Your task to perform on an android device: Open ESPN.com Image 0: 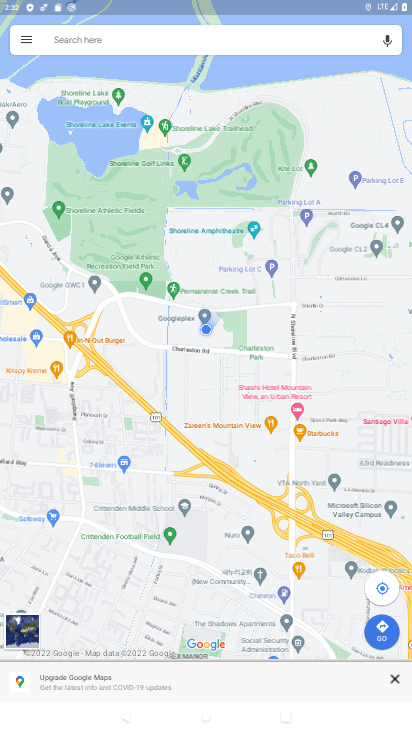
Step 0: press home button
Your task to perform on an android device: Open ESPN.com Image 1: 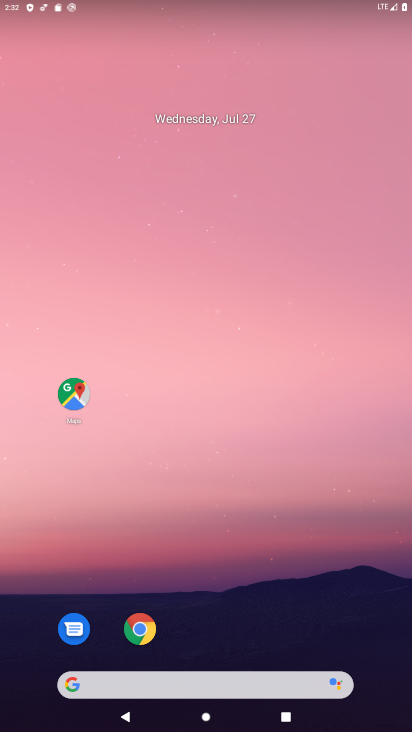
Step 1: click (146, 635)
Your task to perform on an android device: Open ESPN.com Image 2: 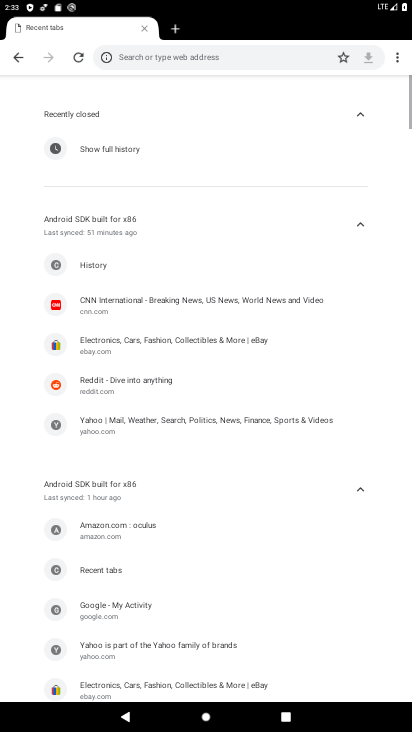
Step 2: click (181, 29)
Your task to perform on an android device: Open ESPN.com Image 3: 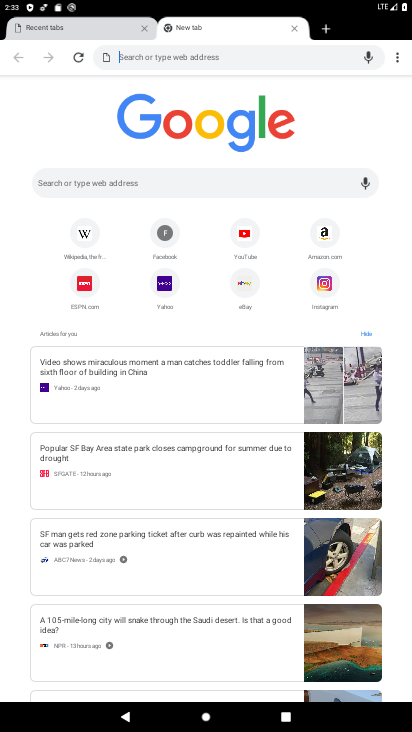
Step 3: click (84, 278)
Your task to perform on an android device: Open ESPN.com Image 4: 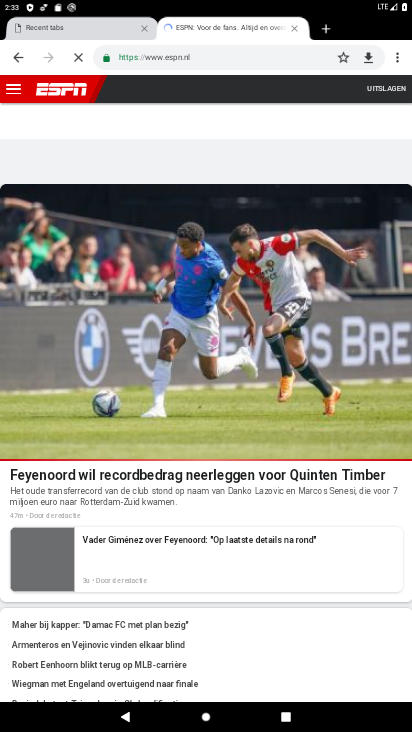
Step 4: task complete